Your task to perform on an android device: Search for Mexican restaurants on Maps Image 0: 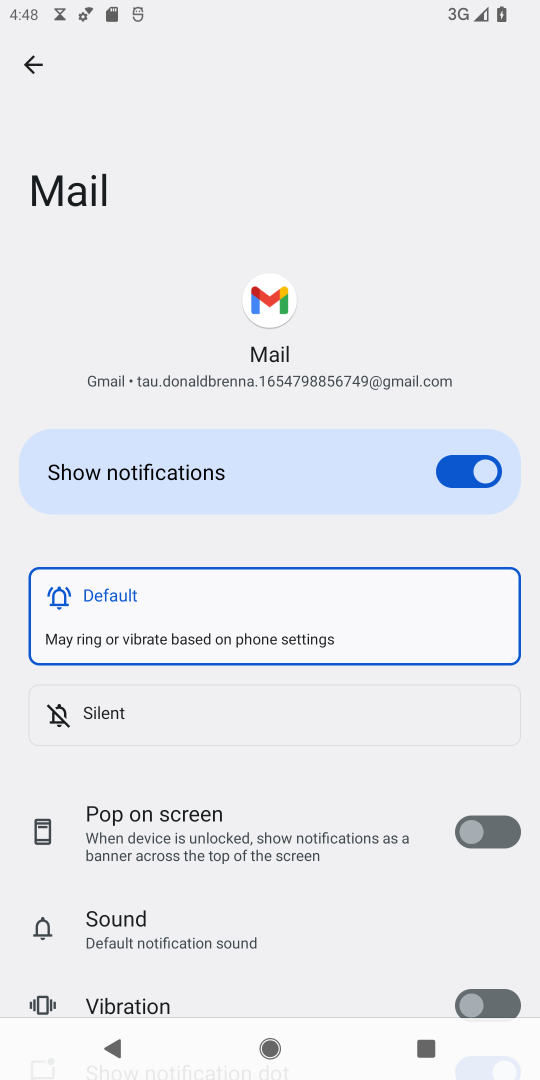
Step 0: press home button
Your task to perform on an android device: Search for Mexican restaurants on Maps Image 1: 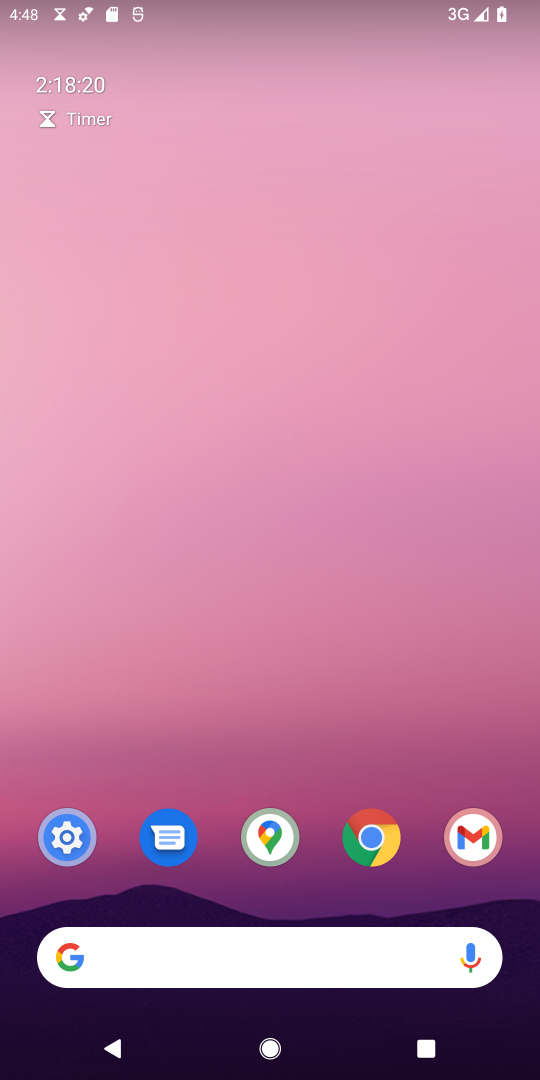
Step 1: click (273, 841)
Your task to perform on an android device: Search for Mexican restaurants on Maps Image 2: 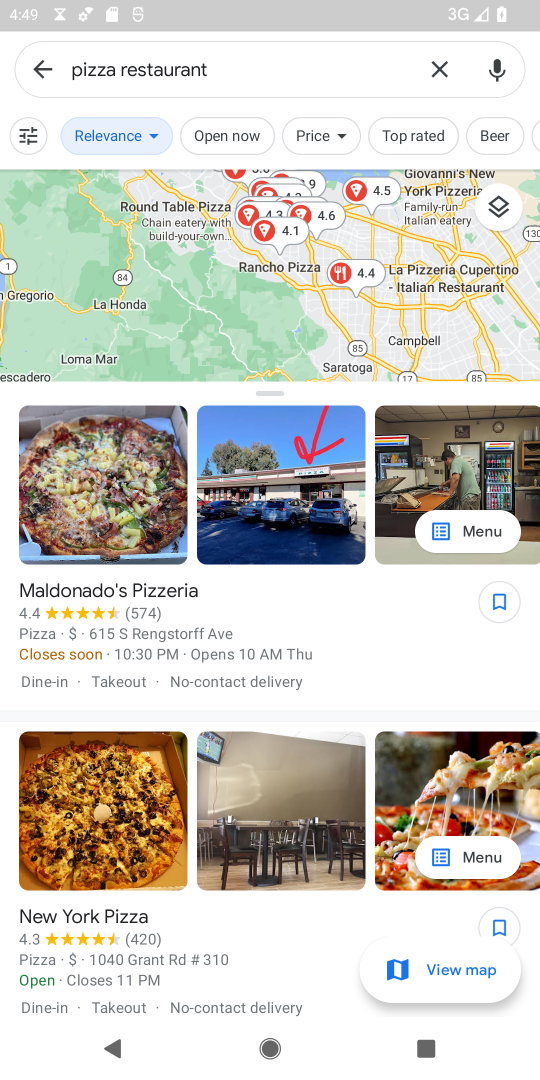
Step 2: click (370, 66)
Your task to perform on an android device: Search for Mexican restaurants on Maps Image 3: 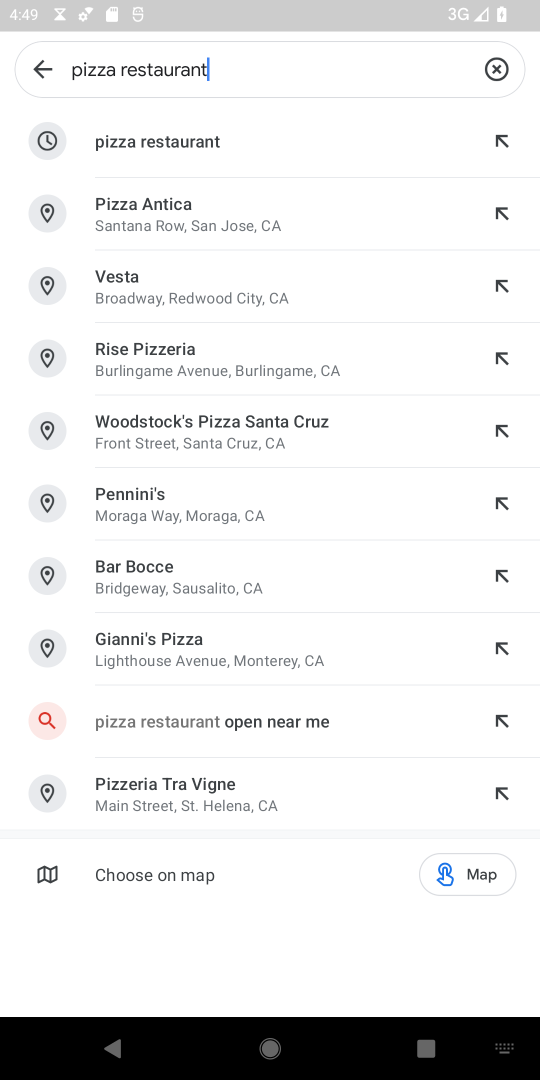
Step 3: click (499, 62)
Your task to perform on an android device: Search for Mexican restaurants on Maps Image 4: 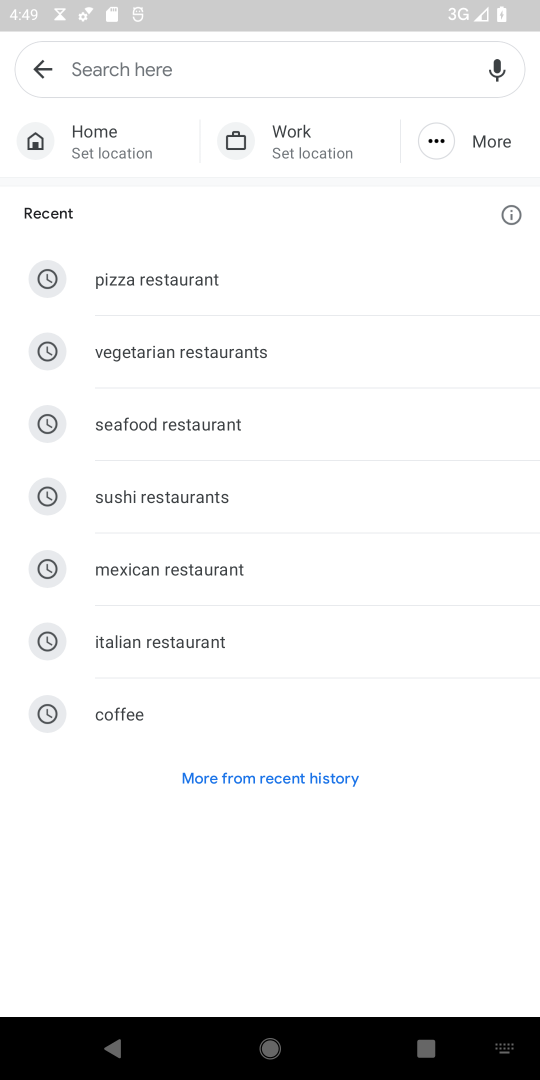
Step 4: type "mexican restaurants"
Your task to perform on an android device: Search for Mexican restaurants on Maps Image 5: 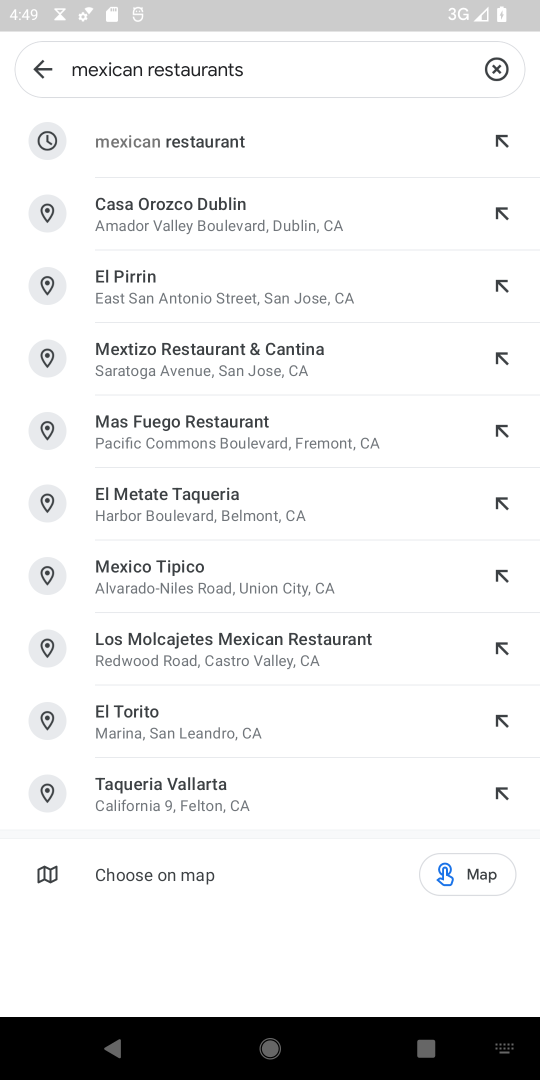
Step 5: click (147, 133)
Your task to perform on an android device: Search for Mexican restaurants on Maps Image 6: 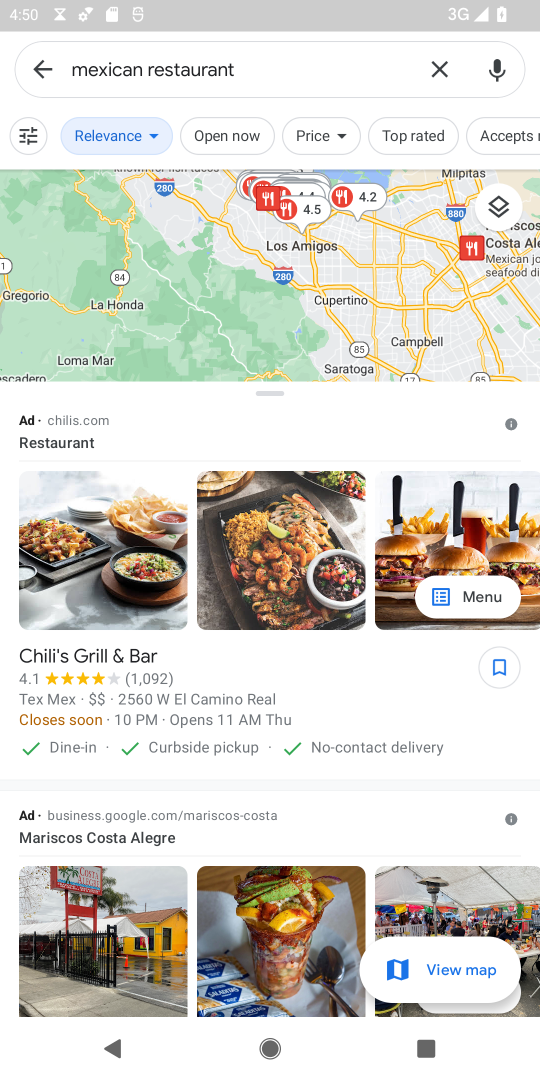
Step 6: task complete